Your task to perform on an android device: change notifications settings Image 0: 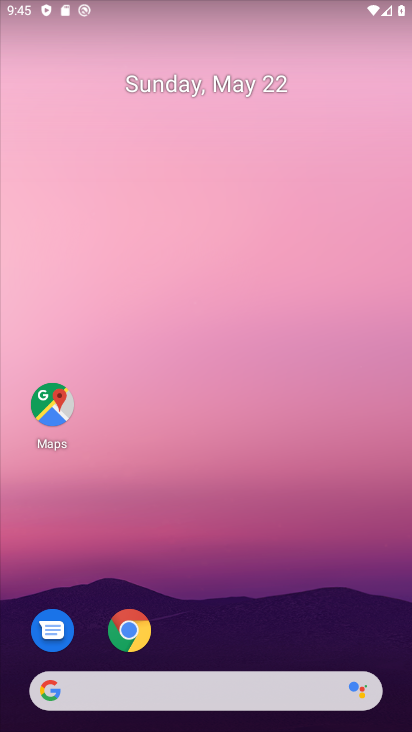
Step 0: drag from (389, 701) to (323, 247)
Your task to perform on an android device: change notifications settings Image 1: 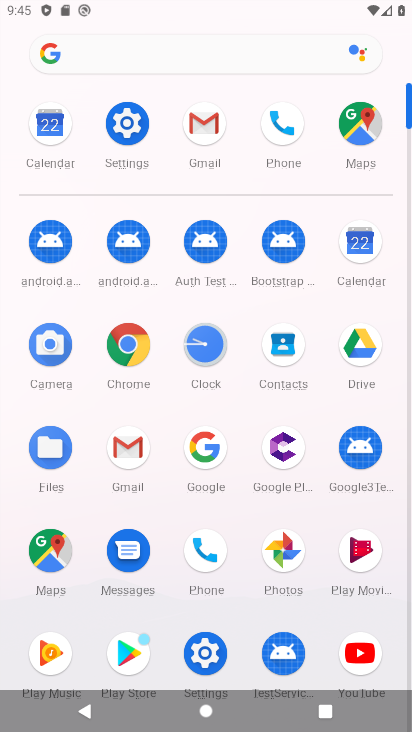
Step 1: click (128, 120)
Your task to perform on an android device: change notifications settings Image 2: 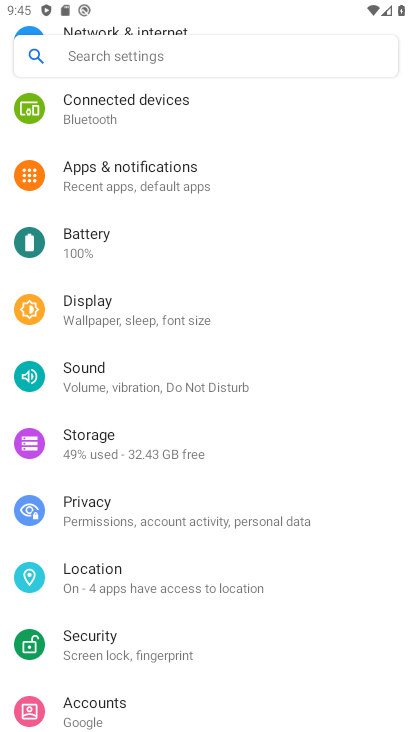
Step 2: click (130, 171)
Your task to perform on an android device: change notifications settings Image 3: 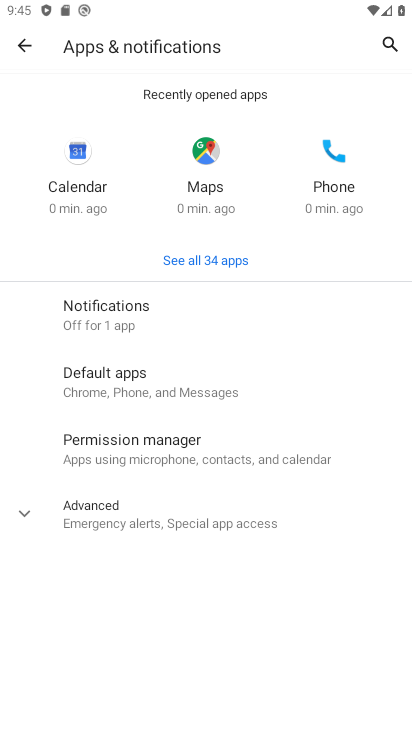
Step 3: click (107, 320)
Your task to perform on an android device: change notifications settings Image 4: 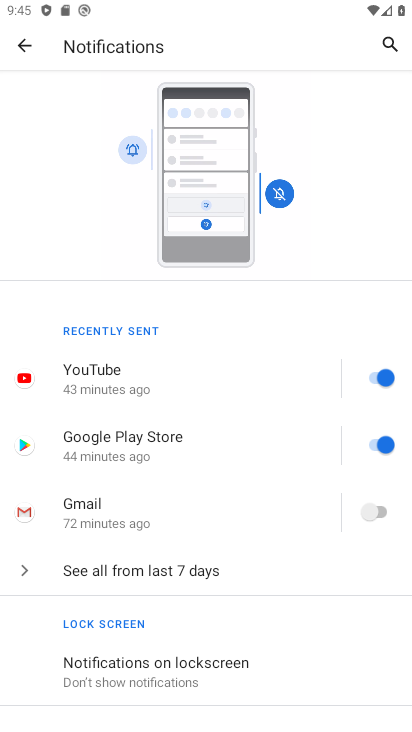
Step 4: click (377, 379)
Your task to perform on an android device: change notifications settings Image 5: 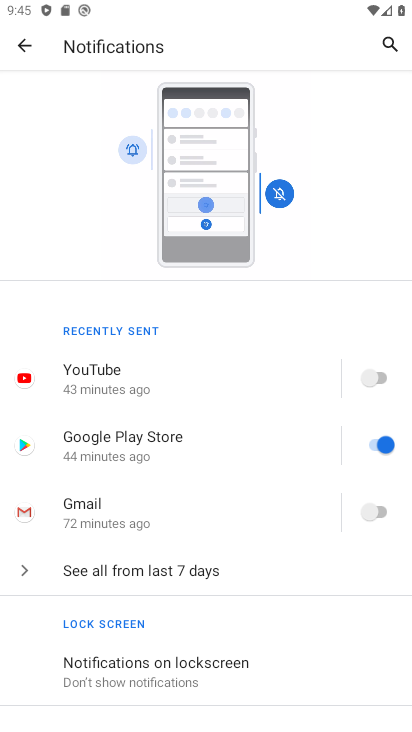
Step 5: click (373, 453)
Your task to perform on an android device: change notifications settings Image 6: 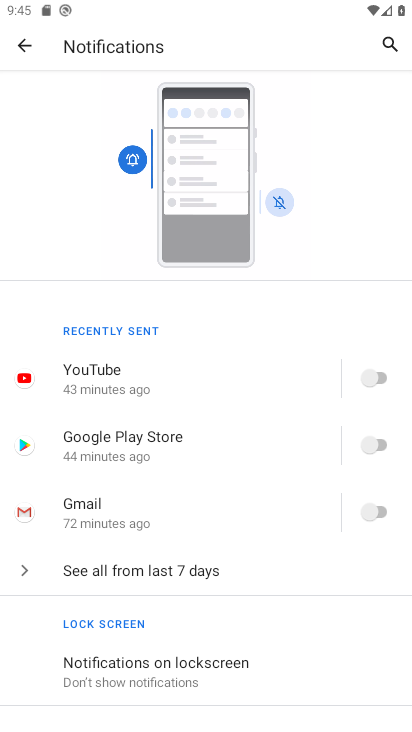
Step 6: click (379, 513)
Your task to perform on an android device: change notifications settings Image 7: 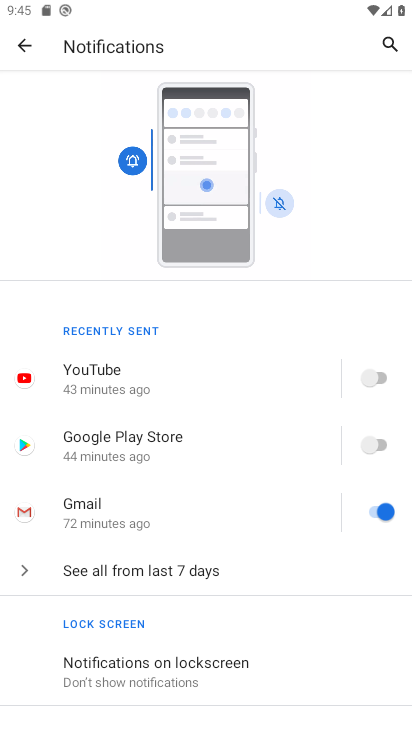
Step 7: task complete